Your task to perform on an android device: Open display settings Image 0: 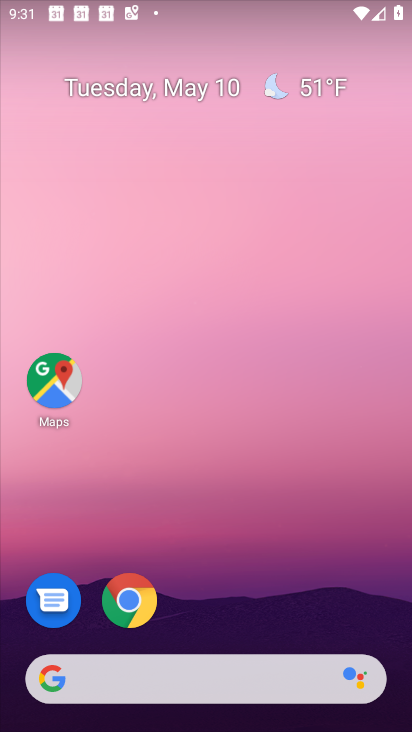
Step 0: drag from (235, 609) to (306, 1)
Your task to perform on an android device: Open display settings Image 1: 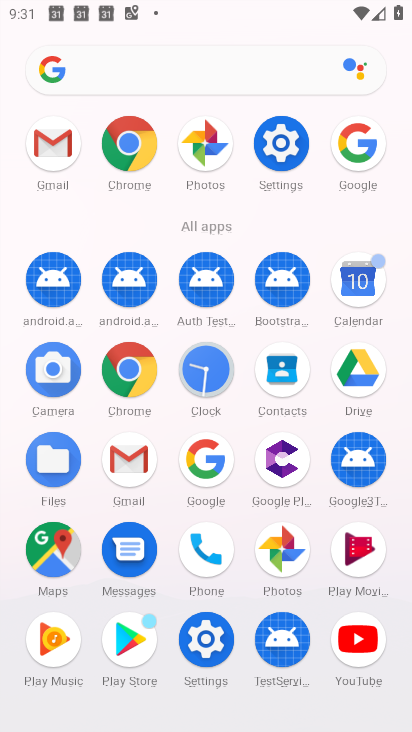
Step 1: click (220, 639)
Your task to perform on an android device: Open display settings Image 2: 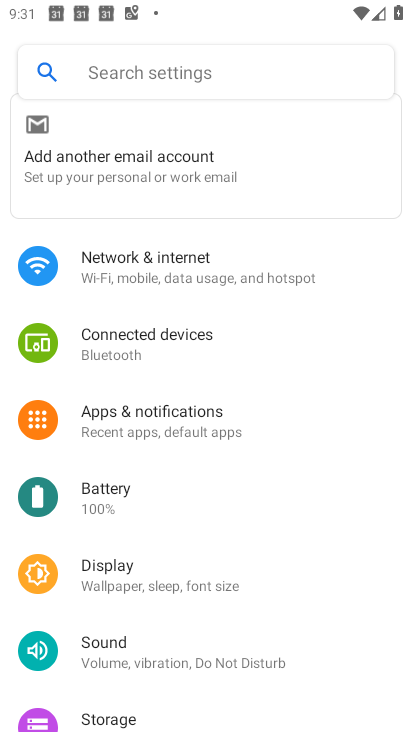
Step 2: click (146, 585)
Your task to perform on an android device: Open display settings Image 3: 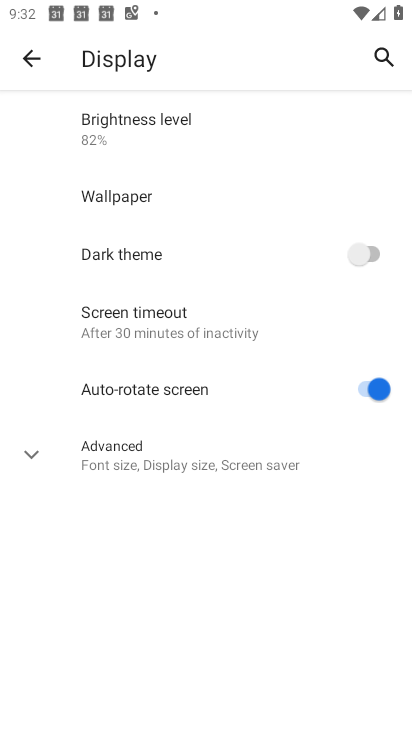
Step 3: task complete